Your task to perform on an android device: open device folders in google photos Image 0: 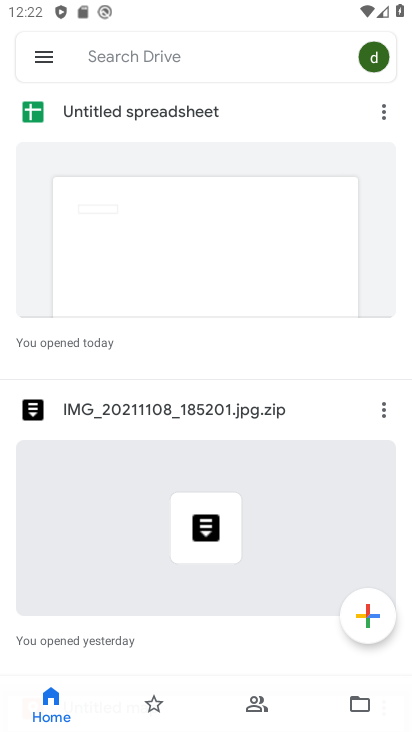
Step 0: press home button
Your task to perform on an android device: open device folders in google photos Image 1: 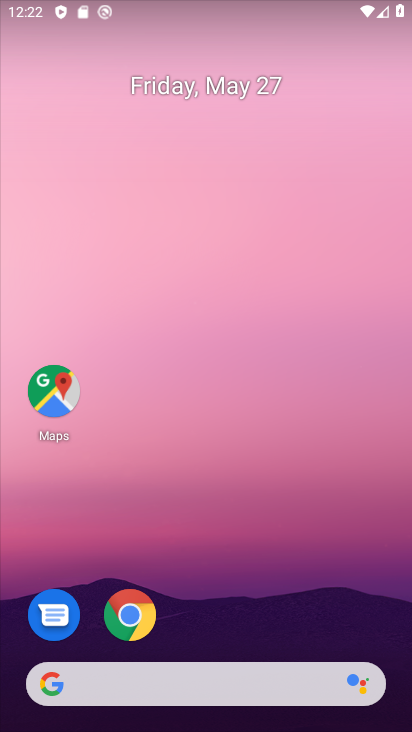
Step 1: drag from (235, 578) to (310, 126)
Your task to perform on an android device: open device folders in google photos Image 2: 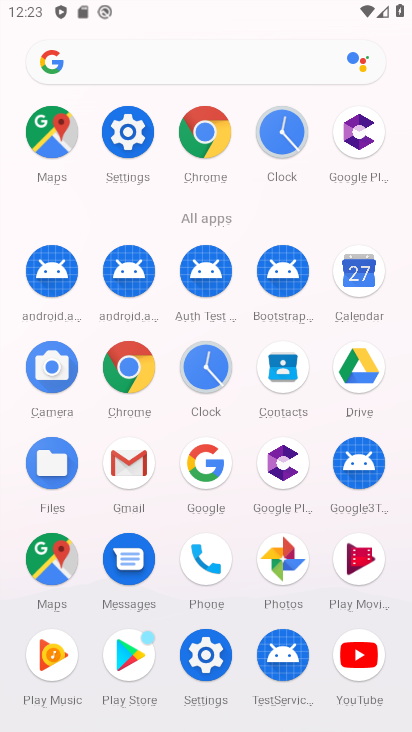
Step 2: click (280, 575)
Your task to perform on an android device: open device folders in google photos Image 3: 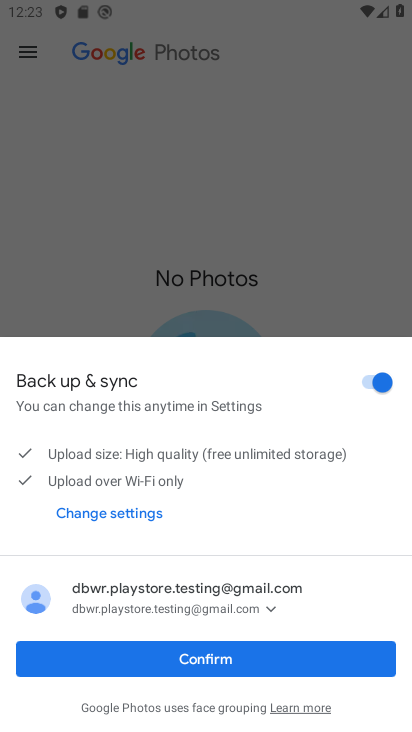
Step 3: click (304, 665)
Your task to perform on an android device: open device folders in google photos Image 4: 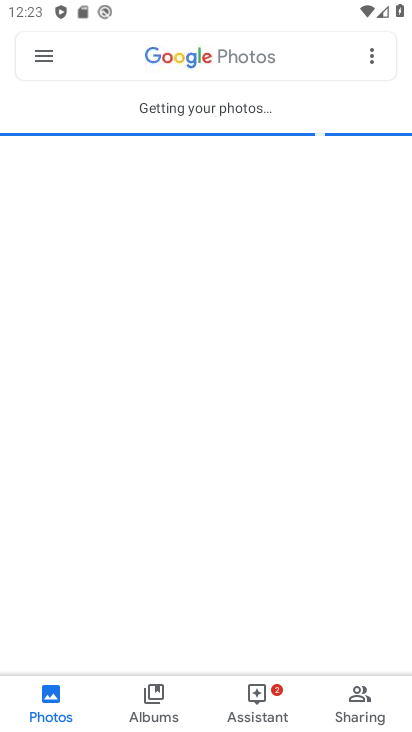
Step 4: click (42, 66)
Your task to perform on an android device: open device folders in google photos Image 5: 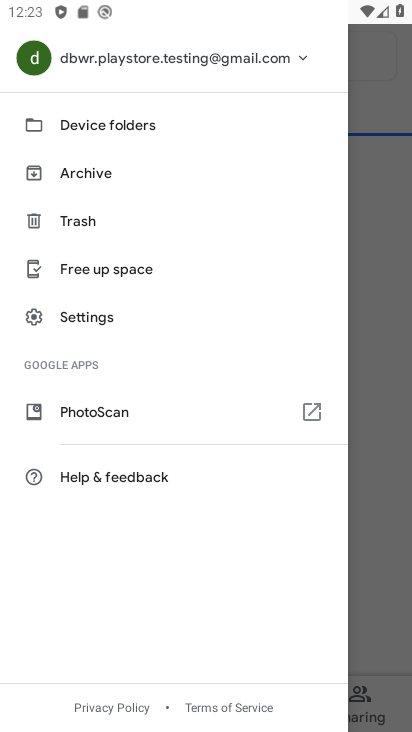
Step 5: click (119, 131)
Your task to perform on an android device: open device folders in google photos Image 6: 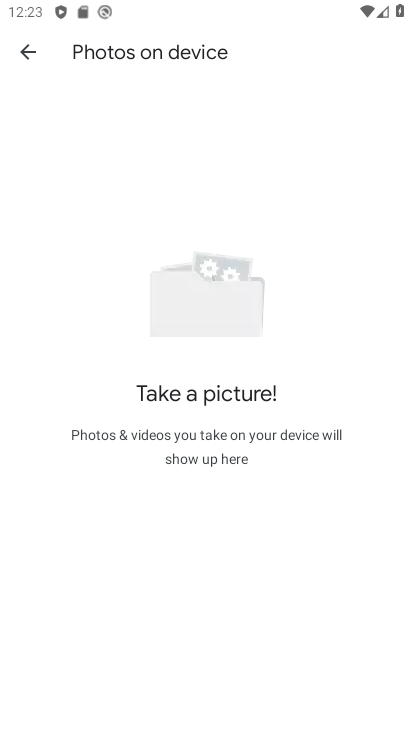
Step 6: task complete